Your task to perform on an android device: Open privacy settings Image 0: 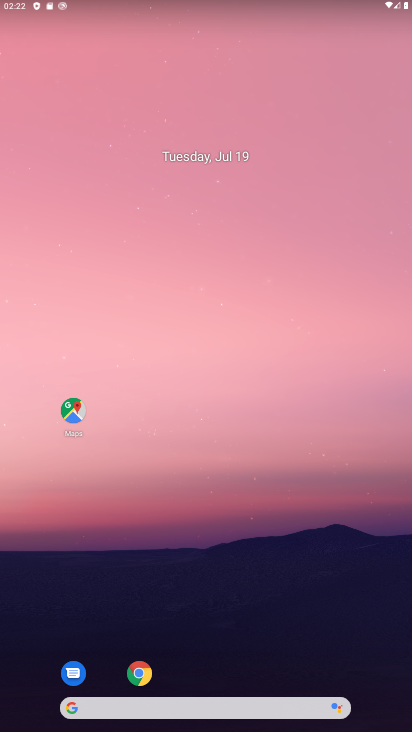
Step 0: drag from (248, 679) to (301, 111)
Your task to perform on an android device: Open privacy settings Image 1: 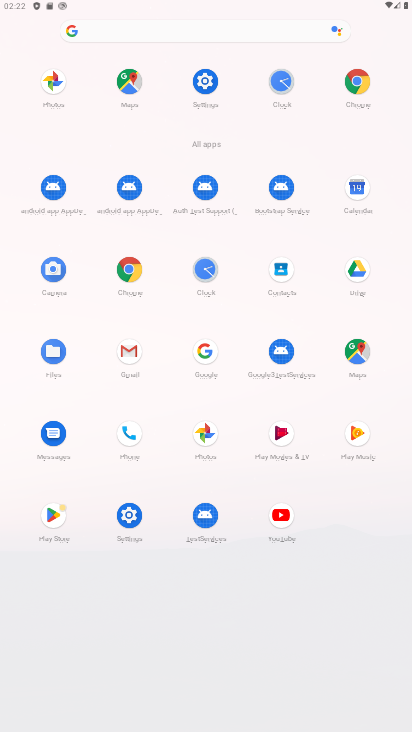
Step 1: click (148, 269)
Your task to perform on an android device: Open privacy settings Image 2: 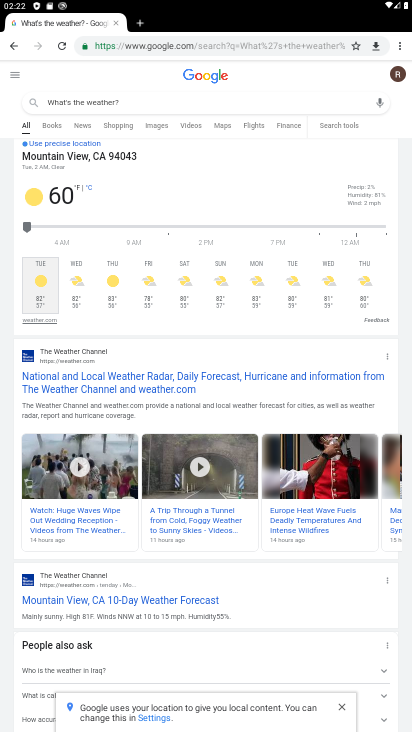
Step 2: drag from (394, 48) to (318, 314)
Your task to perform on an android device: Open privacy settings Image 3: 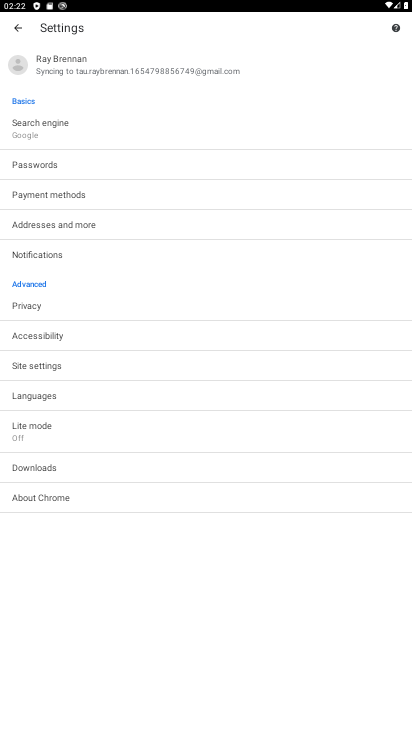
Step 3: click (115, 298)
Your task to perform on an android device: Open privacy settings Image 4: 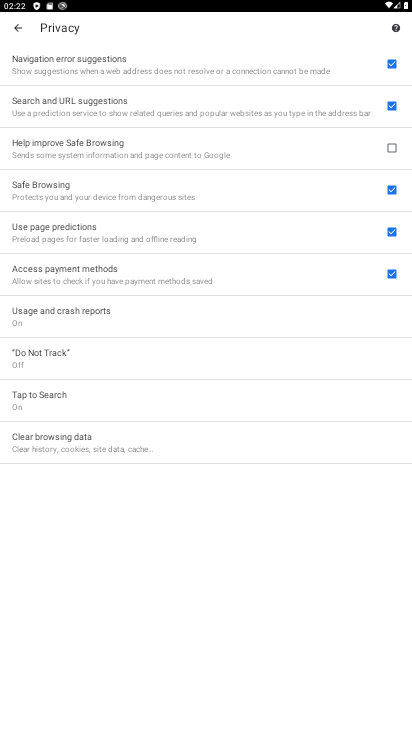
Step 4: task complete